Your task to perform on an android device: Open settings on Google Maps Image 0: 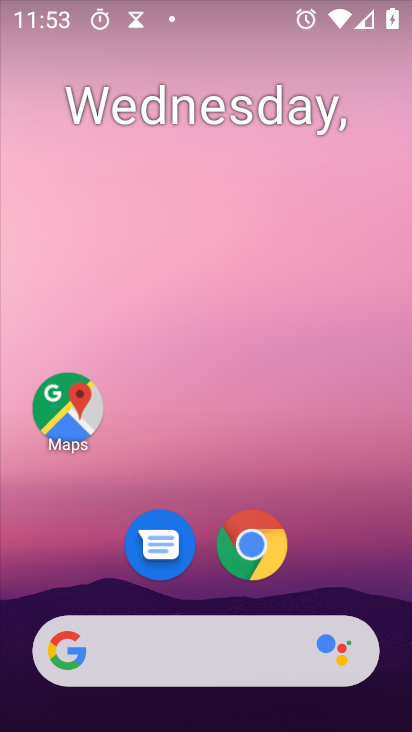
Step 0: press home button
Your task to perform on an android device: Open settings on Google Maps Image 1: 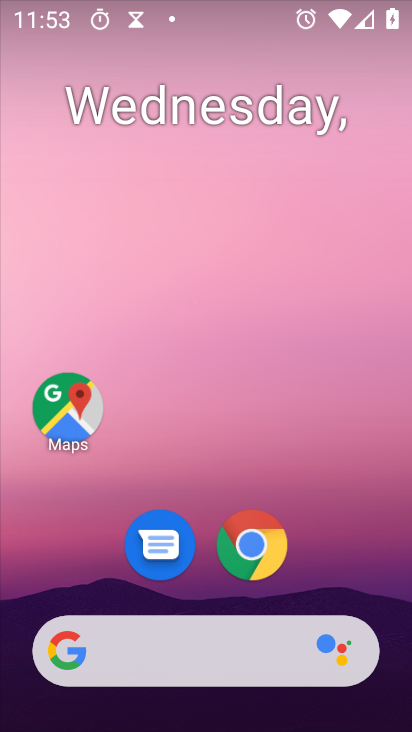
Step 1: click (84, 409)
Your task to perform on an android device: Open settings on Google Maps Image 2: 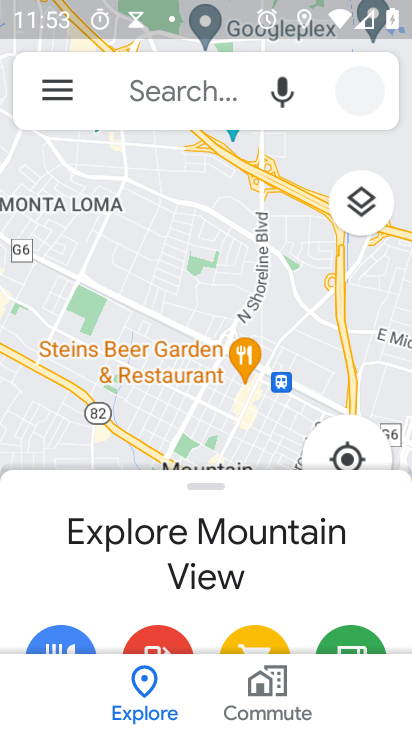
Step 2: click (54, 95)
Your task to perform on an android device: Open settings on Google Maps Image 3: 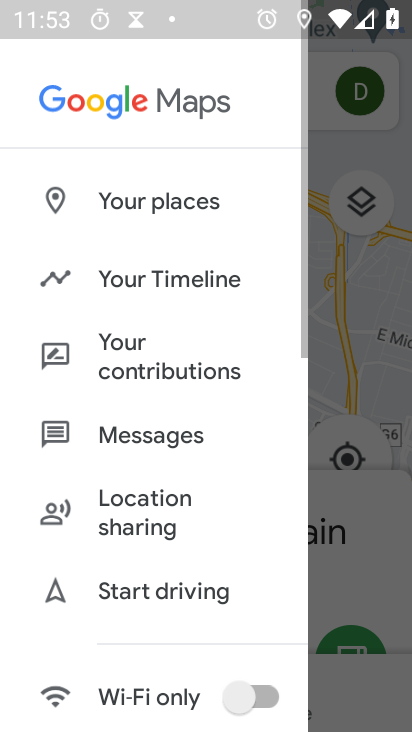
Step 3: drag from (148, 595) to (218, 84)
Your task to perform on an android device: Open settings on Google Maps Image 4: 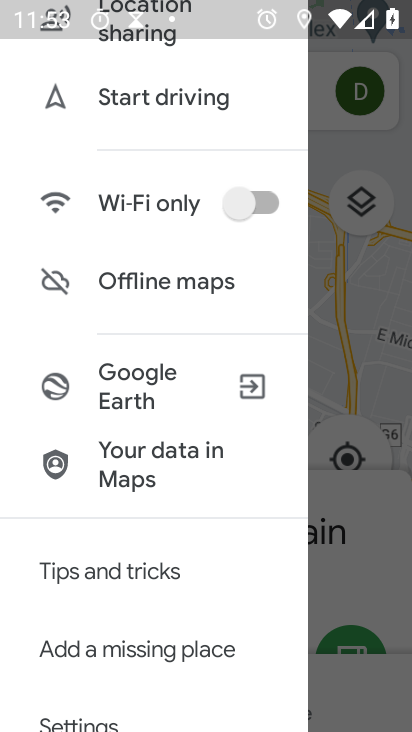
Step 4: drag from (132, 578) to (191, 142)
Your task to perform on an android device: Open settings on Google Maps Image 5: 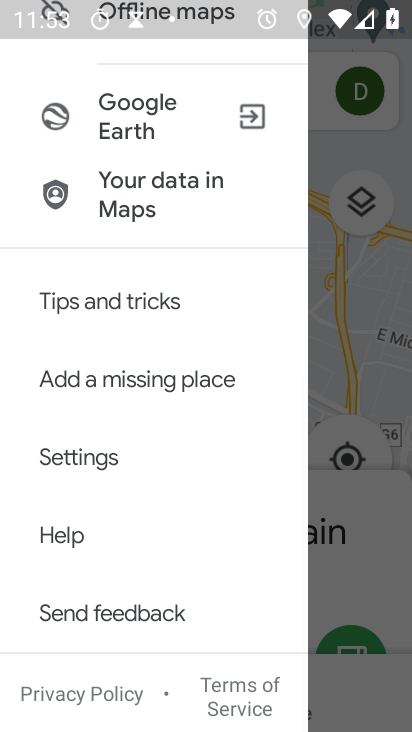
Step 5: click (97, 437)
Your task to perform on an android device: Open settings on Google Maps Image 6: 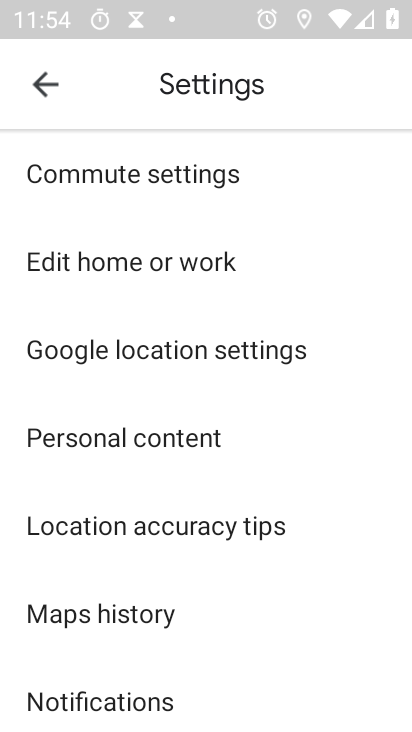
Step 6: task complete